Your task to perform on an android device: Search for Mexican restaurants on Maps Image 0: 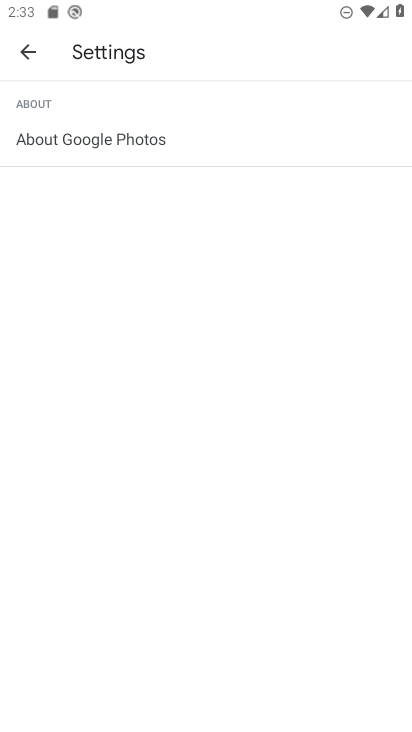
Step 0: click (302, 267)
Your task to perform on an android device: Search for Mexican restaurants on Maps Image 1: 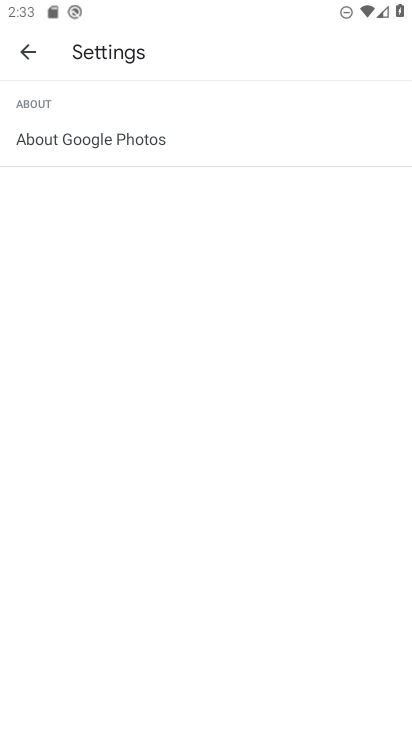
Step 1: press home button
Your task to perform on an android device: Search for Mexican restaurants on Maps Image 2: 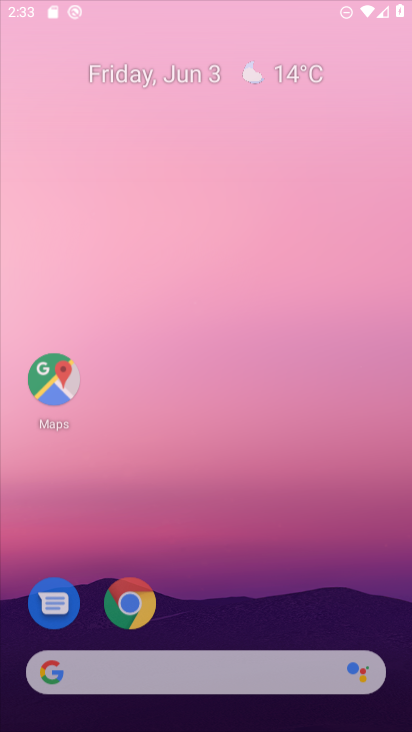
Step 2: drag from (100, 627) to (158, 42)
Your task to perform on an android device: Search for Mexican restaurants on Maps Image 3: 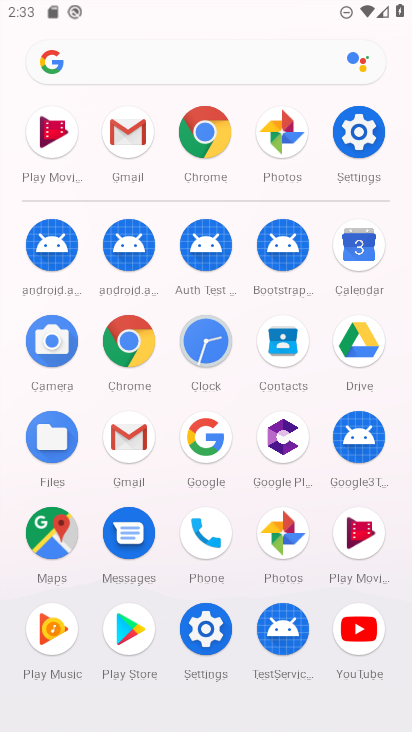
Step 3: click (57, 512)
Your task to perform on an android device: Search for Mexican restaurants on Maps Image 4: 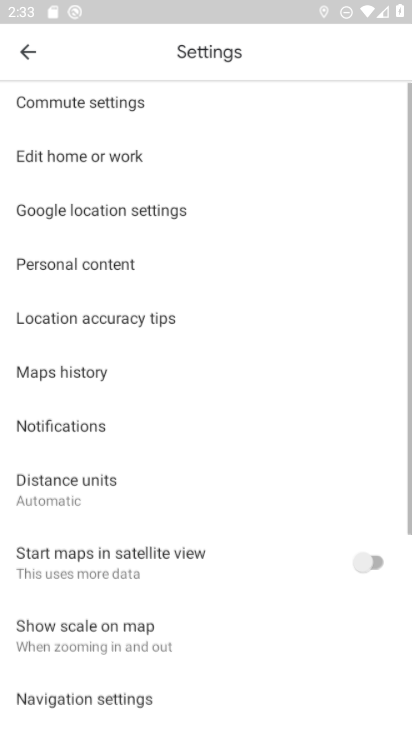
Step 4: drag from (201, 526) to (194, 319)
Your task to perform on an android device: Search for Mexican restaurants on Maps Image 5: 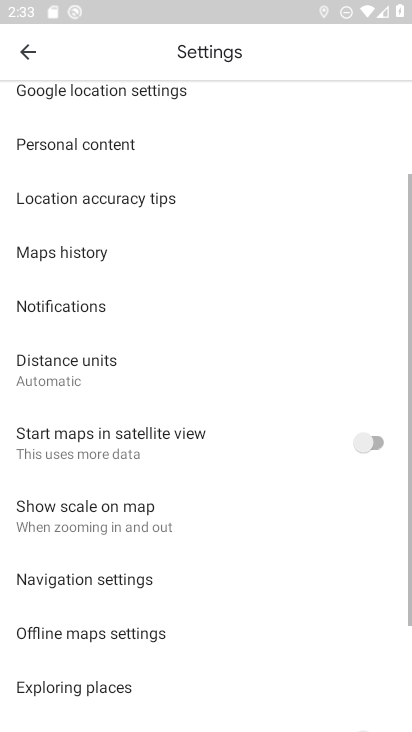
Step 5: drag from (207, 266) to (346, 722)
Your task to perform on an android device: Search for Mexican restaurants on Maps Image 6: 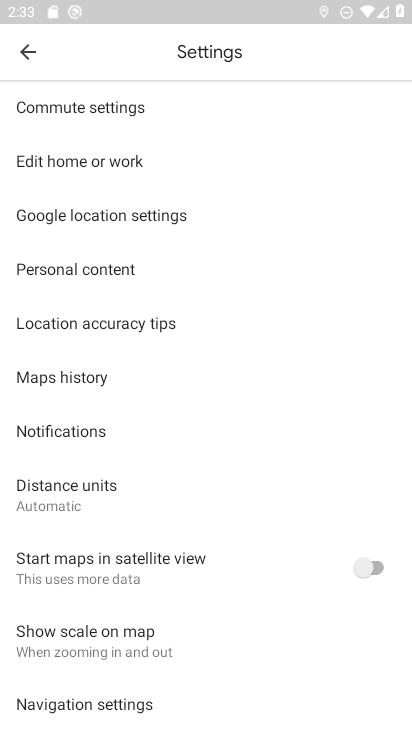
Step 6: click (24, 39)
Your task to perform on an android device: Search for Mexican restaurants on Maps Image 7: 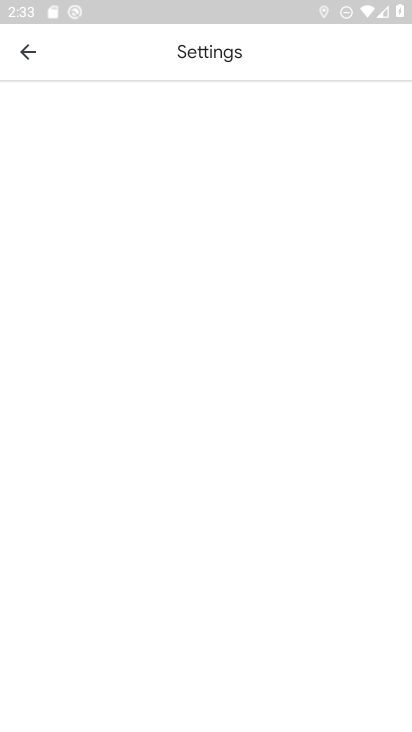
Step 7: drag from (129, 283) to (257, 622)
Your task to perform on an android device: Search for Mexican restaurants on Maps Image 8: 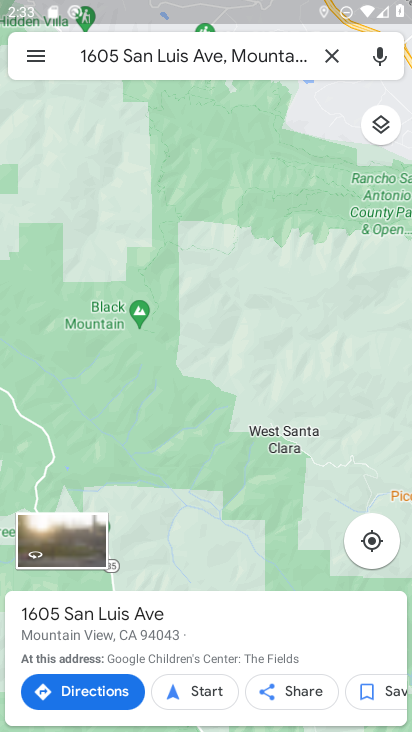
Step 8: click (327, 64)
Your task to perform on an android device: Search for Mexican restaurants on Maps Image 9: 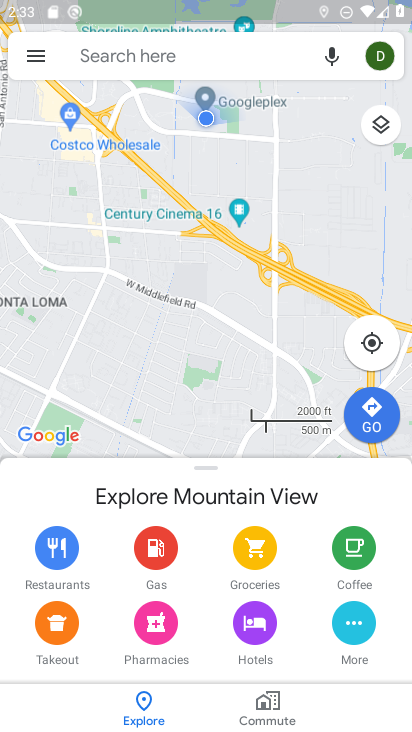
Step 9: click (151, 53)
Your task to perform on an android device: Search for Mexican restaurants on Maps Image 10: 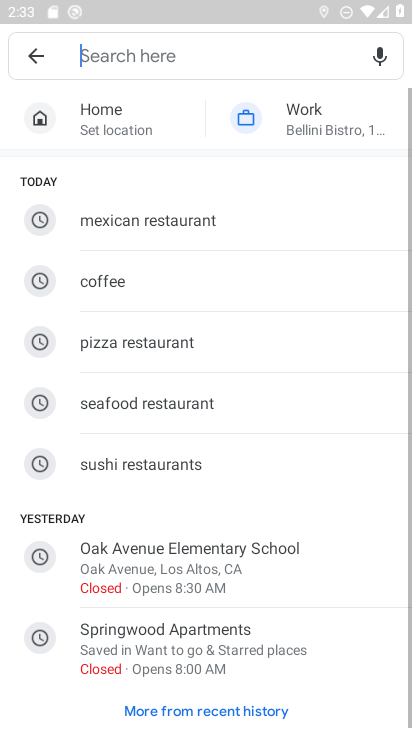
Step 10: click (135, 51)
Your task to perform on an android device: Search for Mexican restaurants on Maps Image 11: 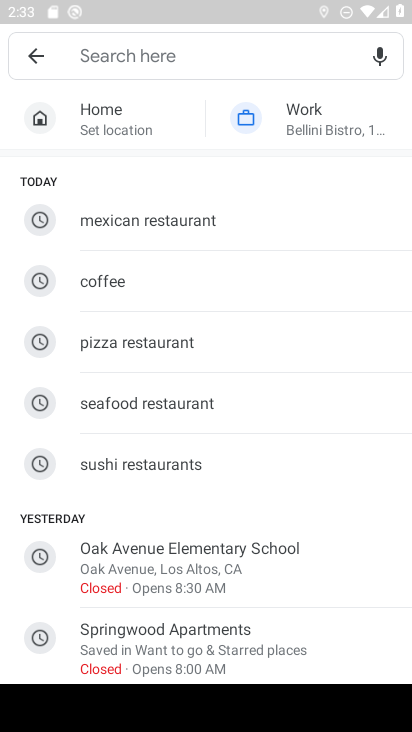
Step 11: drag from (169, 446) to (217, 202)
Your task to perform on an android device: Search for Mexican restaurants on Maps Image 12: 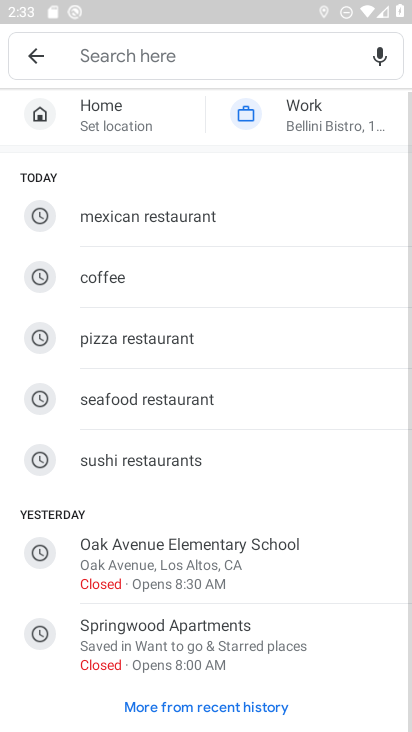
Step 12: drag from (195, 300) to (277, 626)
Your task to perform on an android device: Search for Mexican restaurants on Maps Image 13: 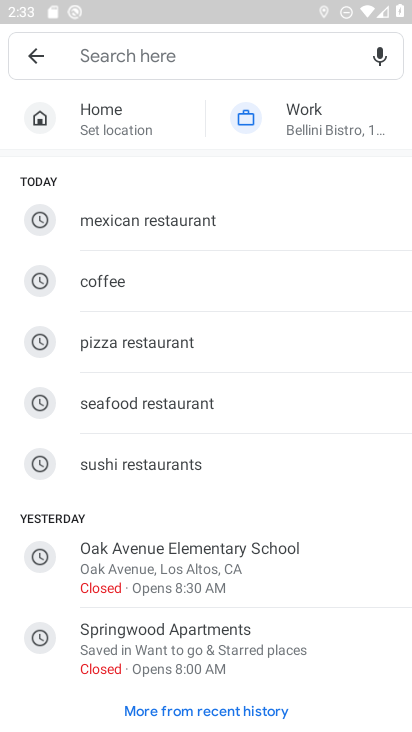
Step 13: click (168, 213)
Your task to perform on an android device: Search for Mexican restaurants on Maps Image 14: 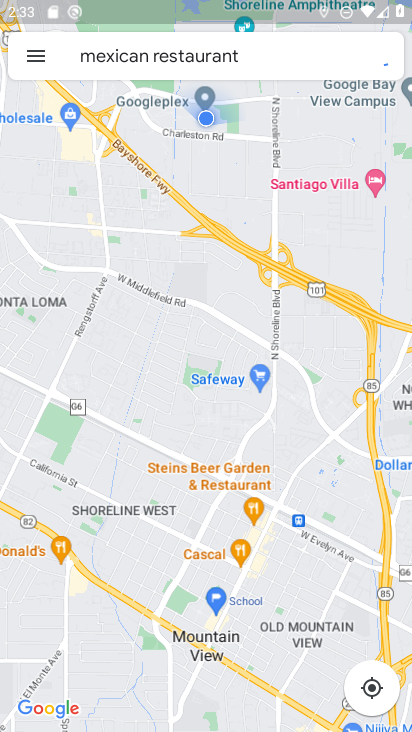
Step 14: task complete